Your task to perform on an android device: toggle show notifications on the lock screen Image 0: 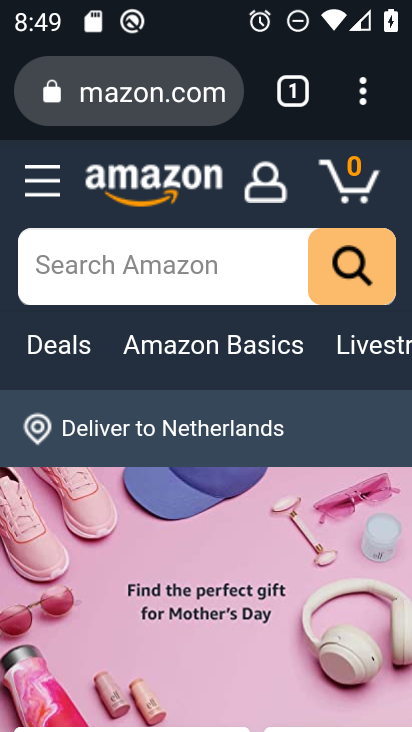
Step 0: press home button
Your task to perform on an android device: toggle show notifications on the lock screen Image 1: 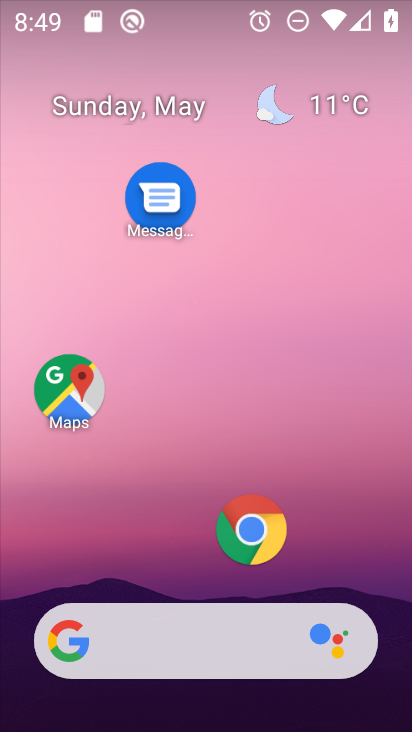
Step 1: drag from (204, 581) to (230, 19)
Your task to perform on an android device: toggle show notifications on the lock screen Image 2: 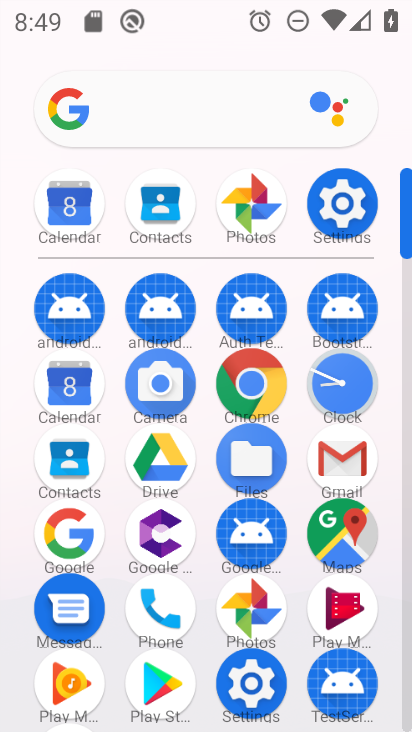
Step 2: click (341, 198)
Your task to perform on an android device: toggle show notifications on the lock screen Image 3: 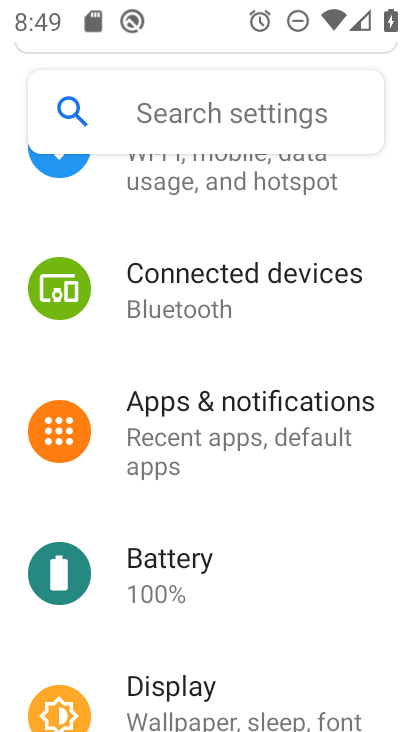
Step 3: click (267, 416)
Your task to perform on an android device: toggle show notifications on the lock screen Image 4: 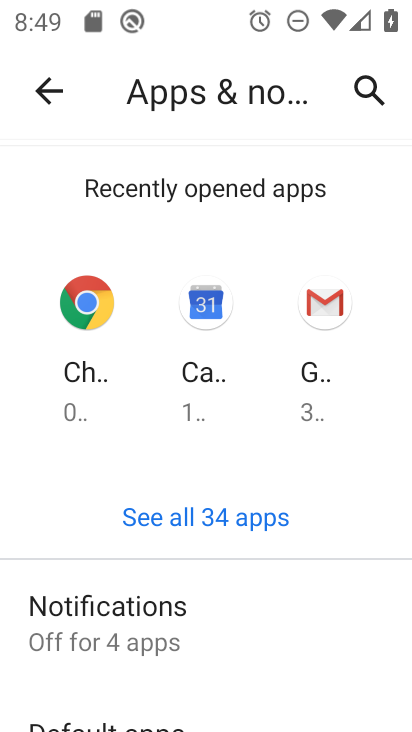
Step 4: click (194, 622)
Your task to perform on an android device: toggle show notifications on the lock screen Image 5: 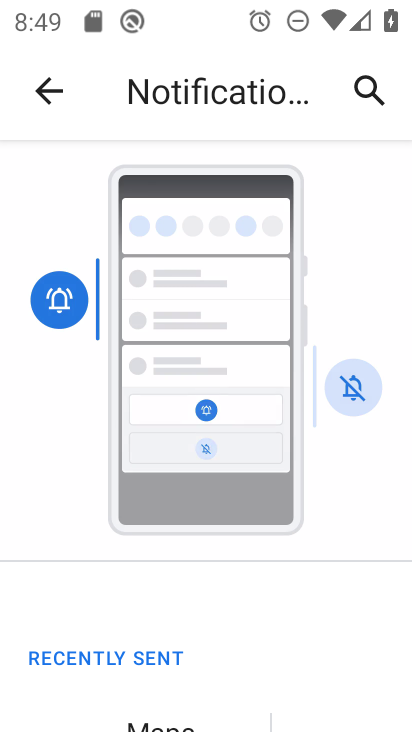
Step 5: drag from (237, 687) to (292, 191)
Your task to perform on an android device: toggle show notifications on the lock screen Image 6: 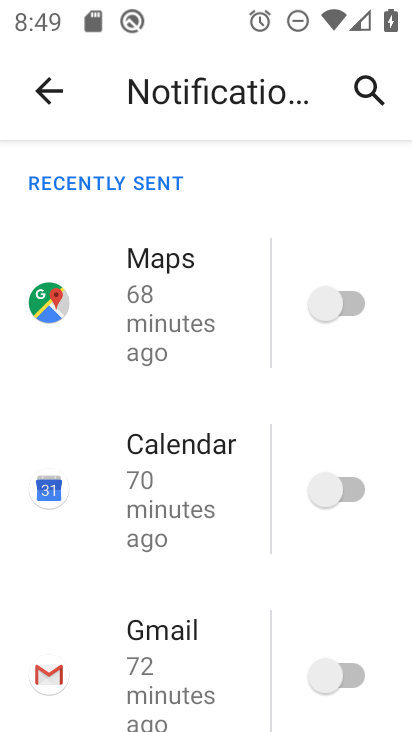
Step 6: drag from (244, 672) to (278, 183)
Your task to perform on an android device: toggle show notifications on the lock screen Image 7: 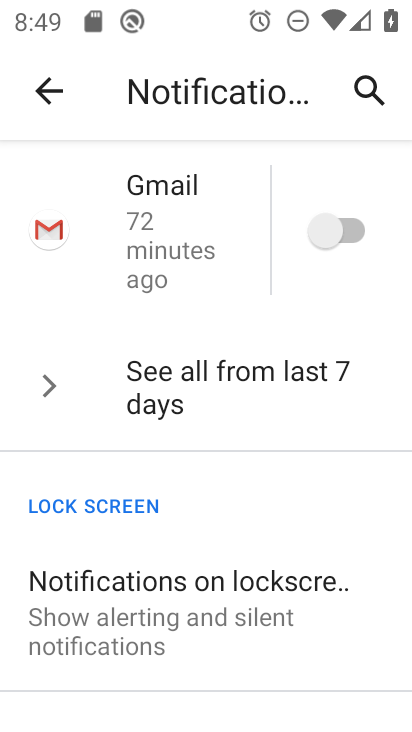
Step 7: click (318, 608)
Your task to perform on an android device: toggle show notifications on the lock screen Image 8: 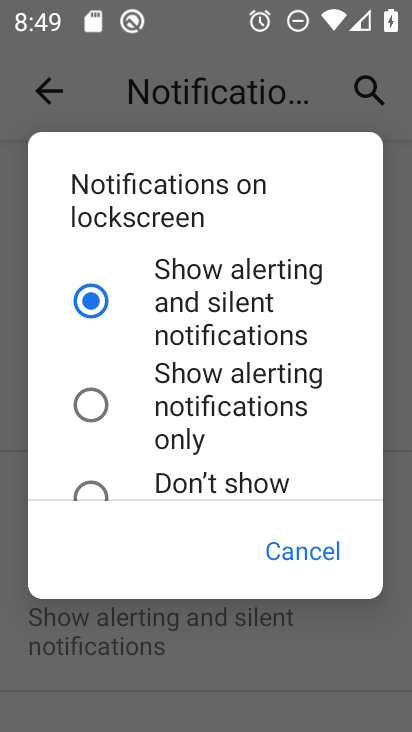
Step 8: click (87, 403)
Your task to perform on an android device: toggle show notifications on the lock screen Image 9: 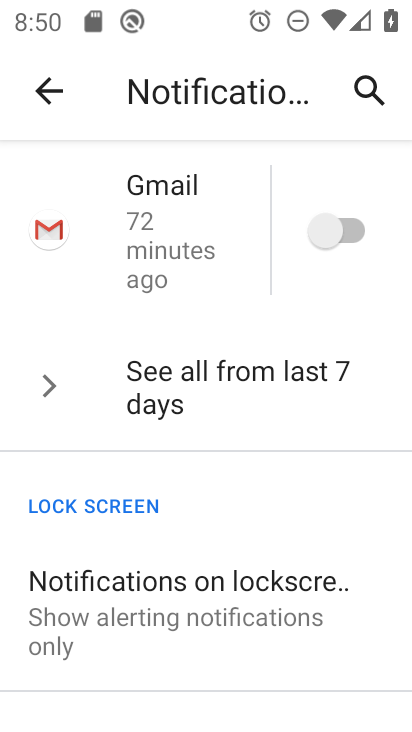
Step 9: task complete